Your task to perform on an android device: Search for "macbook pro 13 inch" on ebay.com, select the first entry, add it to the cart, then select checkout. Image 0: 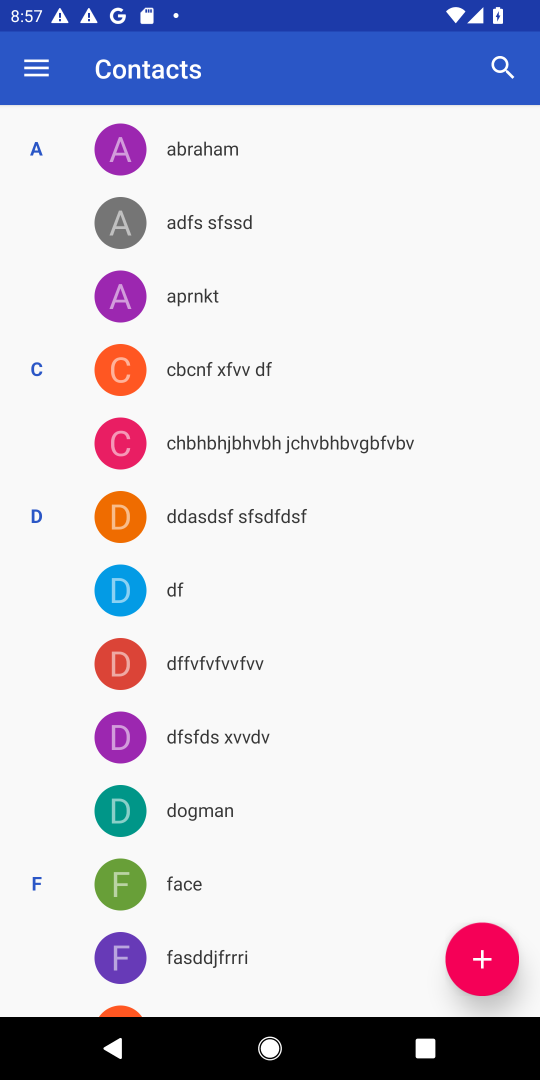
Step 0: press home button
Your task to perform on an android device: Search for "macbook pro 13 inch" on ebay.com, select the first entry, add it to the cart, then select checkout. Image 1: 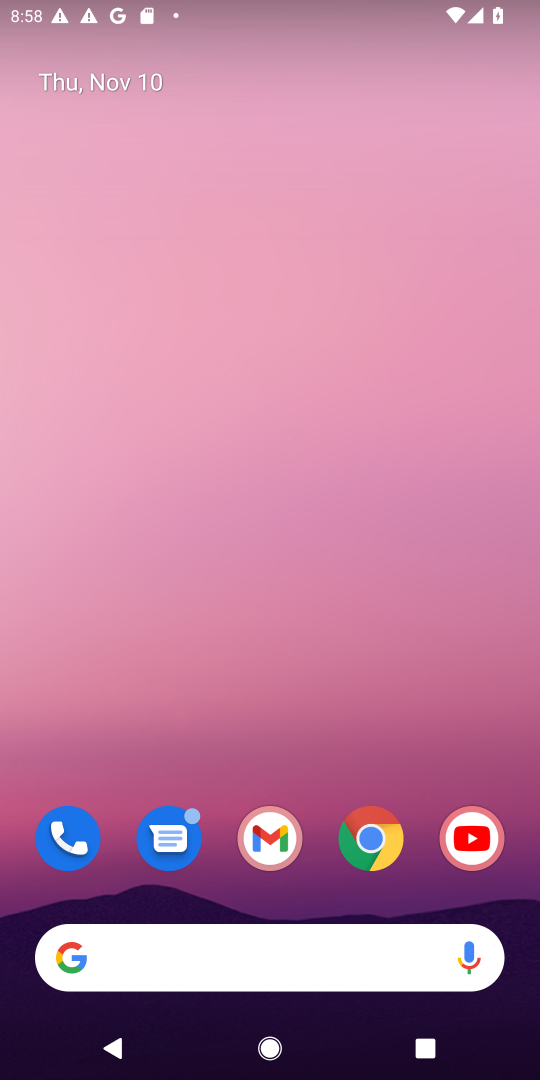
Step 1: drag from (319, 892) to (382, 79)
Your task to perform on an android device: Search for "macbook pro 13 inch" on ebay.com, select the first entry, add it to the cart, then select checkout. Image 2: 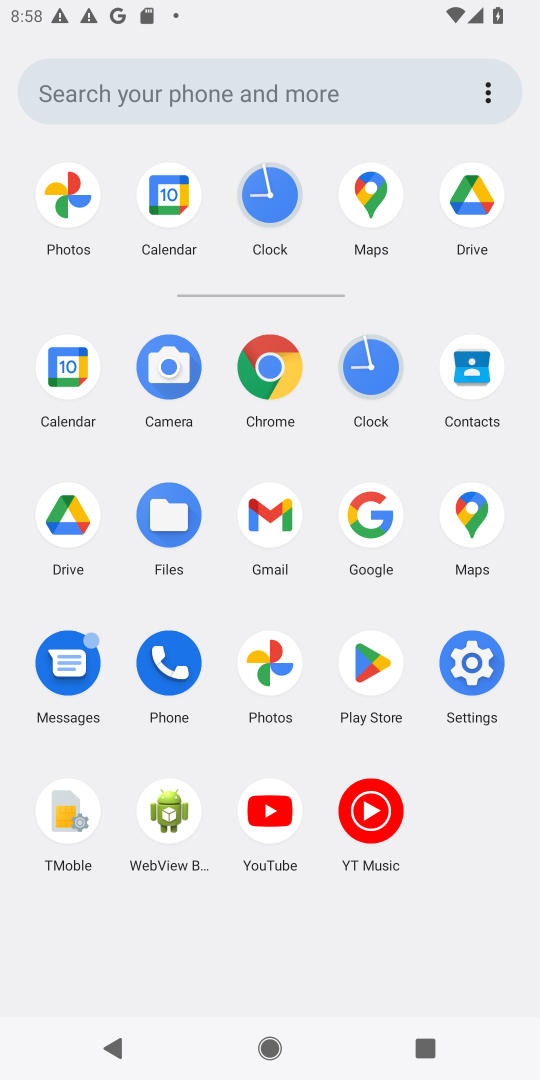
Step 2: click (278, 370)
Your task to perform on an android device: Search for "macbook pro 13 inch" on ebay.com, select the first entry, add it to the cart, then select checkout. Image 3: 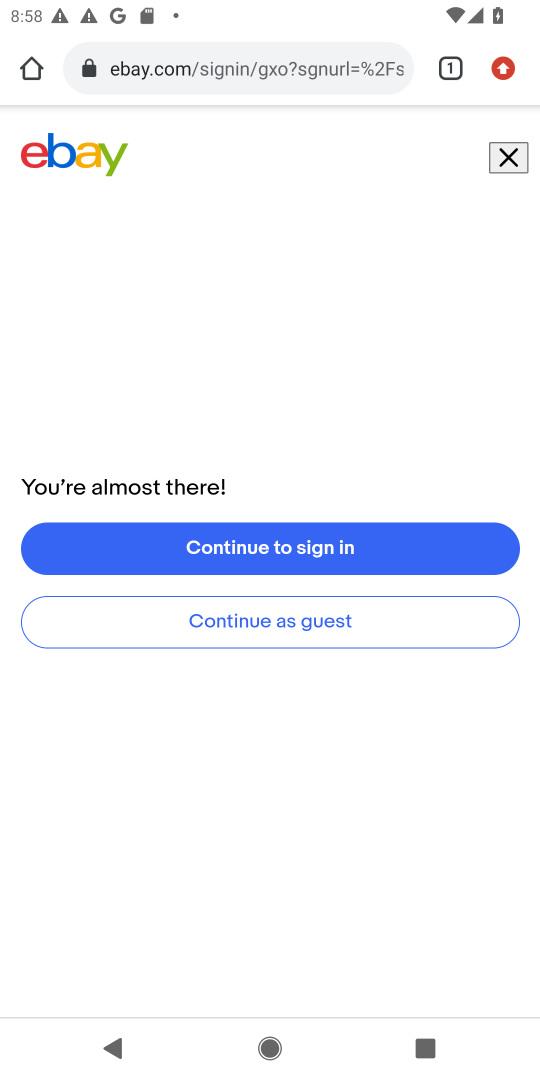
Step 3: click (287, 69)
Your task to perform on an android device: Search for "macbook pro 13 inch" on ebay.com, select the first entry, add it to the cart, then select checkout. Image 4: 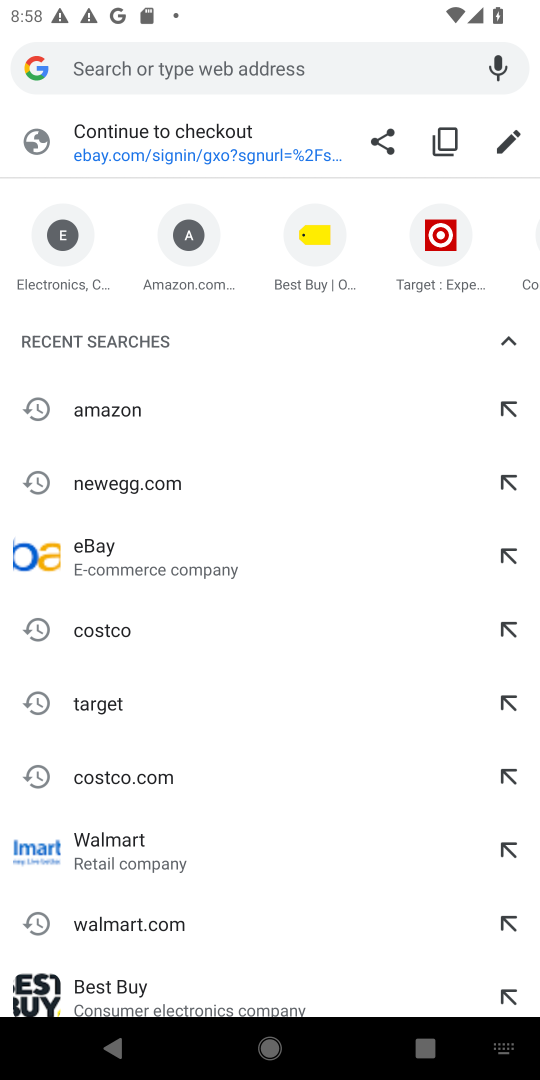
Step 4: type "ebay.com"
Your task to perform on an android device: Search for "macbook pro 13 inch" on ebay.com, select the first entry, add it to the cart, then select checkout. Image 5: 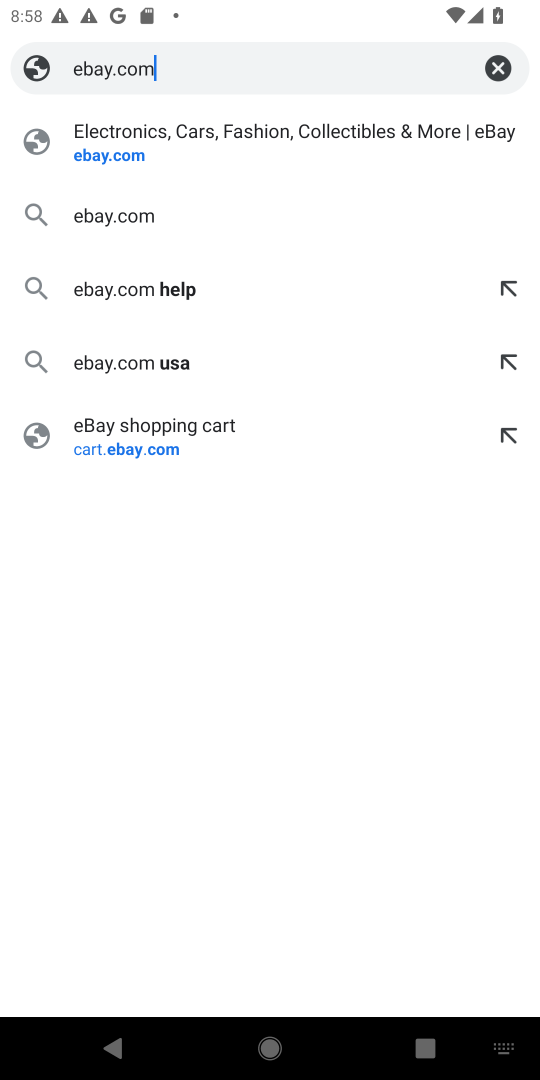
Step 5: press enter
Your task to perform on an android device: Search for "macbook pro 13 inch" on ebay.com, select the first entry, add it to the cart, then select checkout. Image 6: 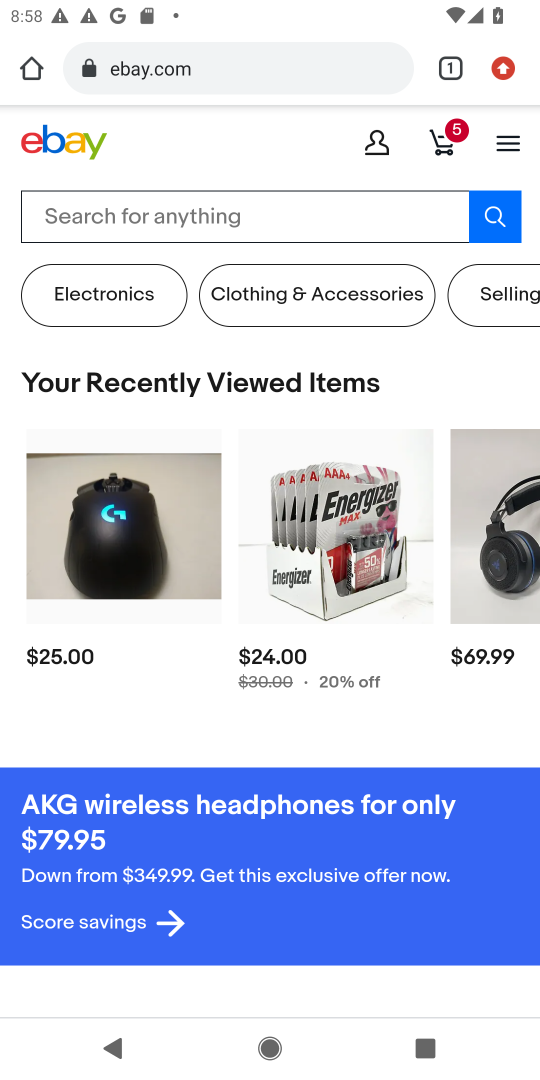
Step 6: click (329, 226)
Your task to perform on an android device: Search for "macbook pro 13 inch" on ebay.com, select the first entry, add it to the cart, then select checkout. Image 7: 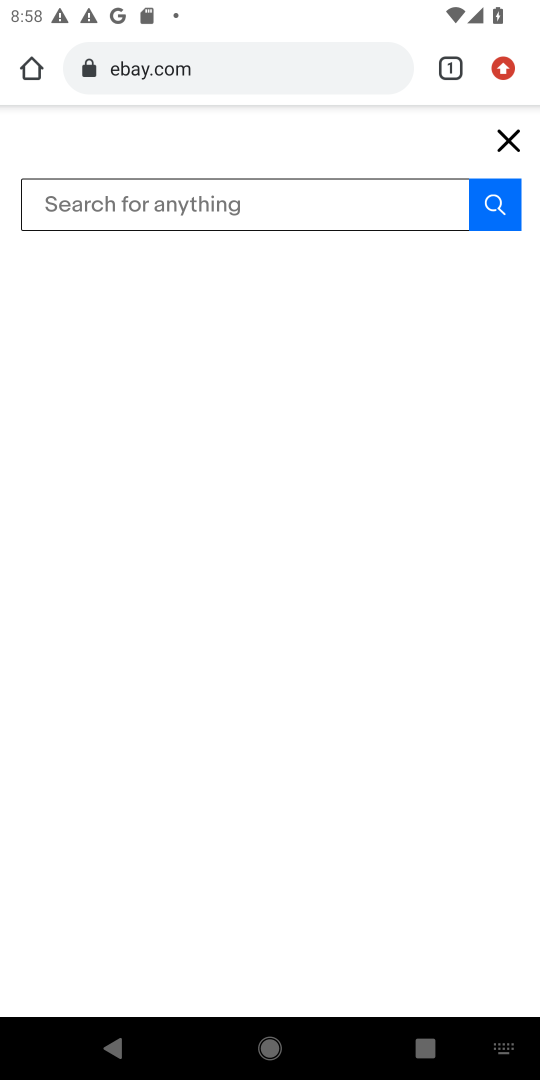
Step 7: type "macbook pro 13 inch"
Your task to perform on an android device: Search for "macbook pro 13 inch" on ebay.com, select the first entry, add it to the cart, then select checkout. Image 8: 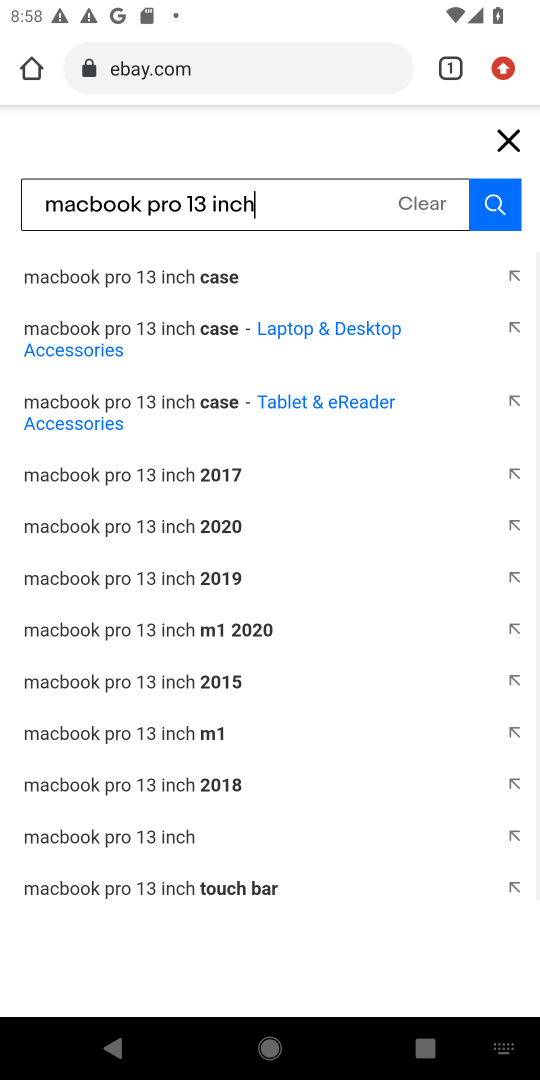
Step 8: press enter
Your task to perform on an android device: Search for "macbook pro 13 inch" on ebay.com, select the first entry, add it to the cart, then select checkout. Image 9: 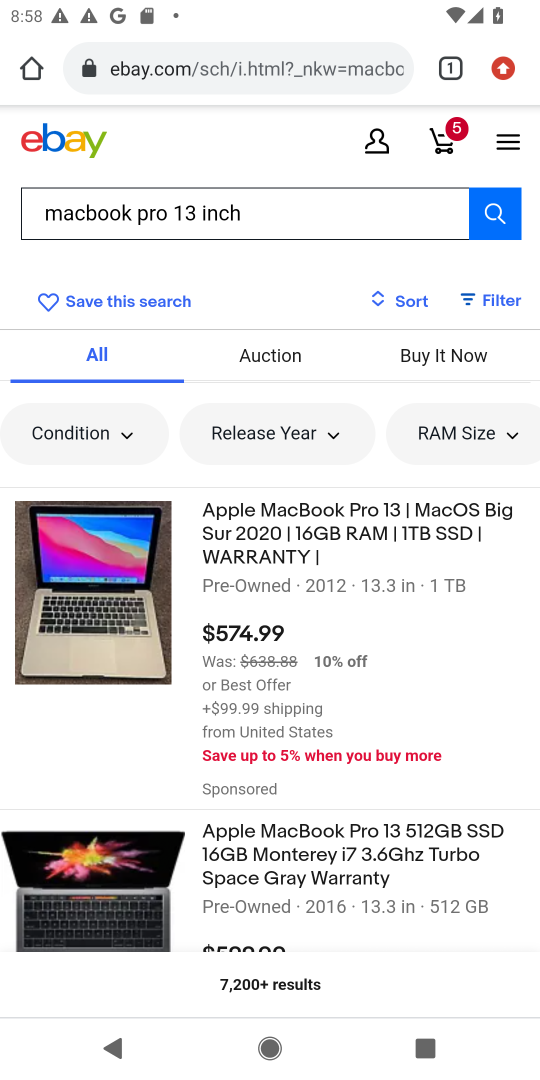
Step 9: click (309, 530)
Your task to perform on an android device: Search for "macbook pro 13 inch" on ebay.com, select the first entry, add it to the cart, then select checkout. Image 10: 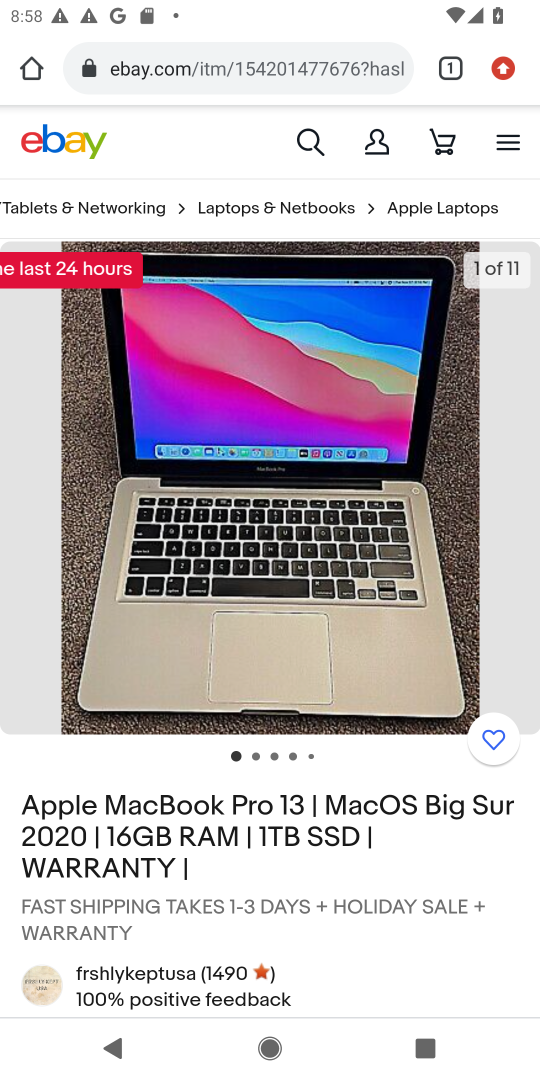
Step 10: drag from (328, 715) to (308, 147)
Your task to perform on an android device: Search for "macbook pro 13 inch" on ebay.com, select the first entry, add it to the cart, then select checkout. Image 11: 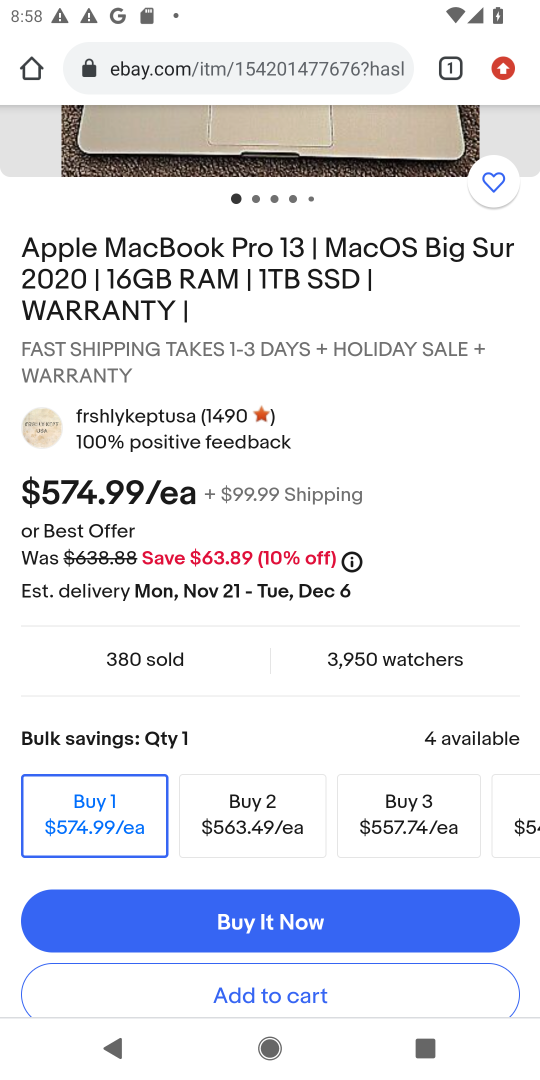
Step 11: click (324, 1012)
Your task to perform on an android device: Search for "macbook pro 13 inch" on ebay.com, select the first entry, add it to the cart, then select checkout. Image 12: 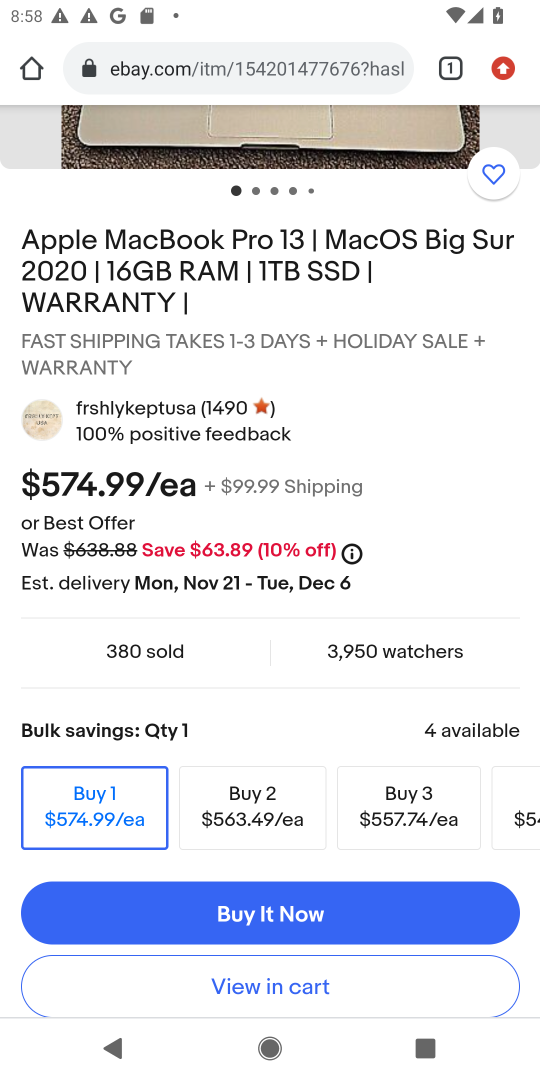
Step 12: click (327, 999)
Your task to perform on an android device: Search for "macbook pro 13 inch" on ebay.com, select the first entry, add it to the cart, then select checkout. Image 13: 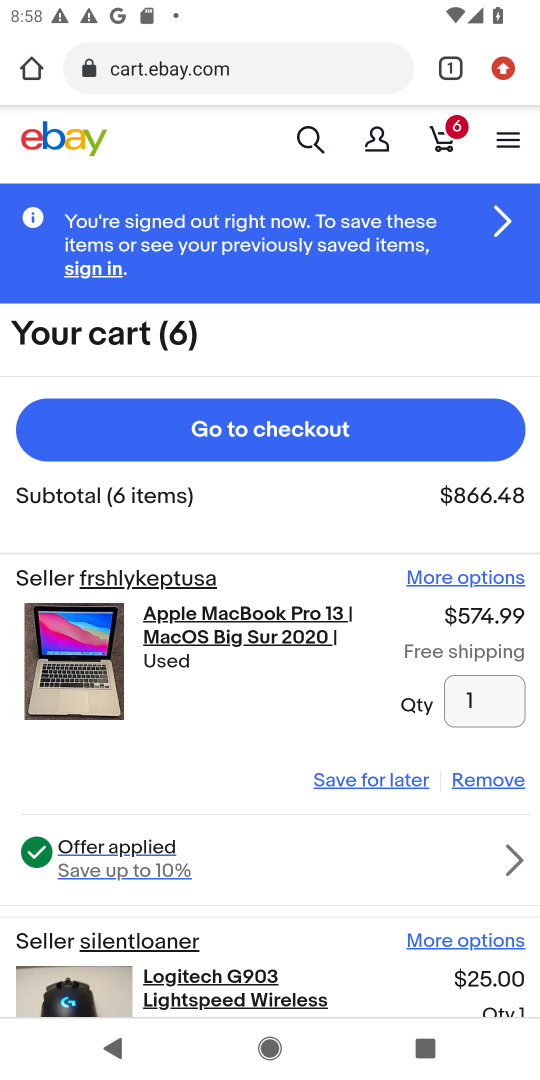
Step 13: click (362, 427)
Your task to perform on an android device: Search for "macbook pro 13 inch" on ebay.com, select the first entry, add it to the cart, then select checkout. Image 14: 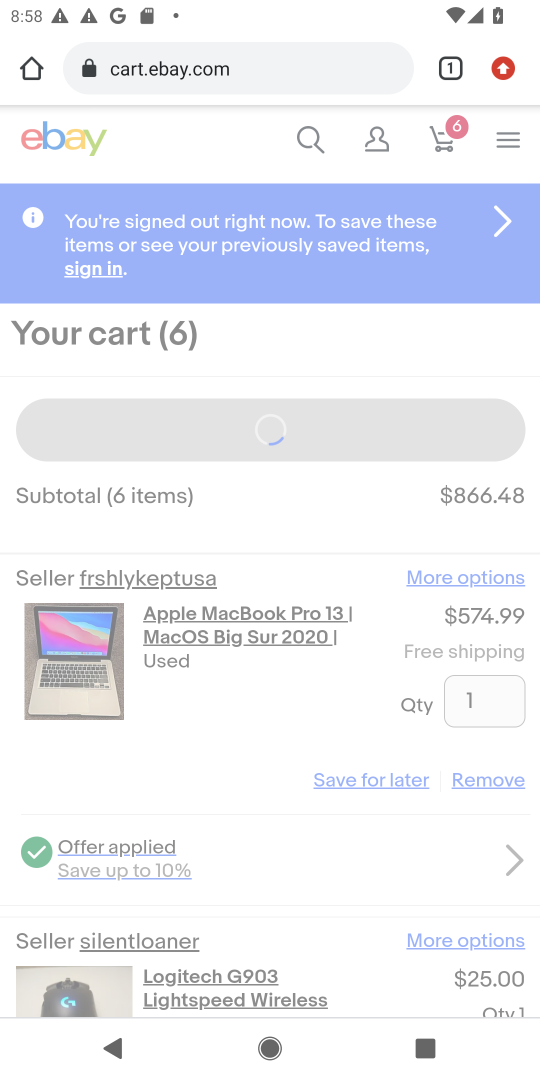
Step 14: task complete